Your task to perform on an android device: delete a single message in the gmail app Image 0: 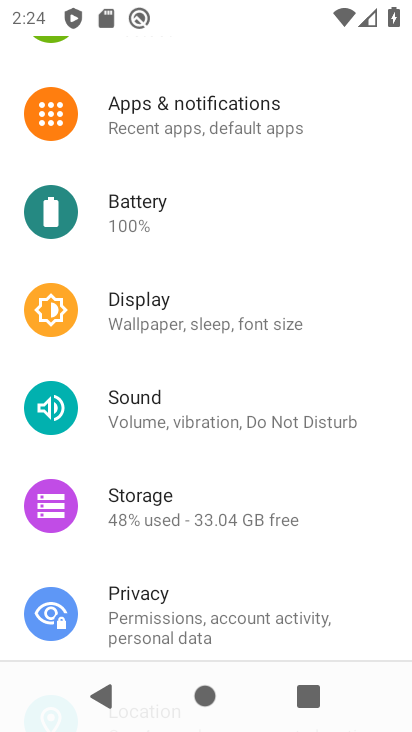
Step 0: press back button
Your task to perform on an android device: delete a single message in the gmail app Image 1: 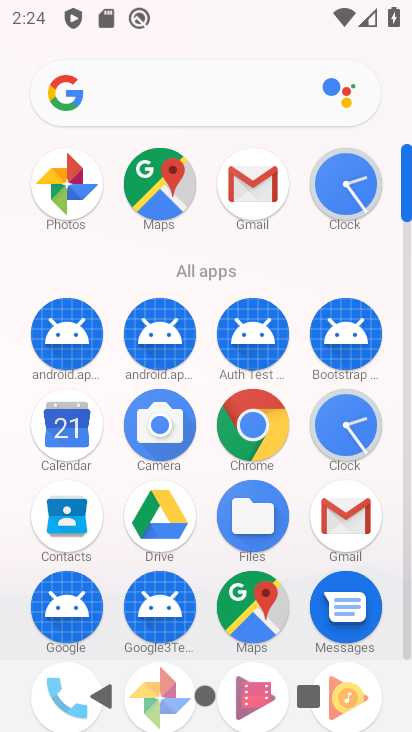
Step 1: click (260, 183)
Your task to perform on an android device: delete a single message in the gmail app Image 2: 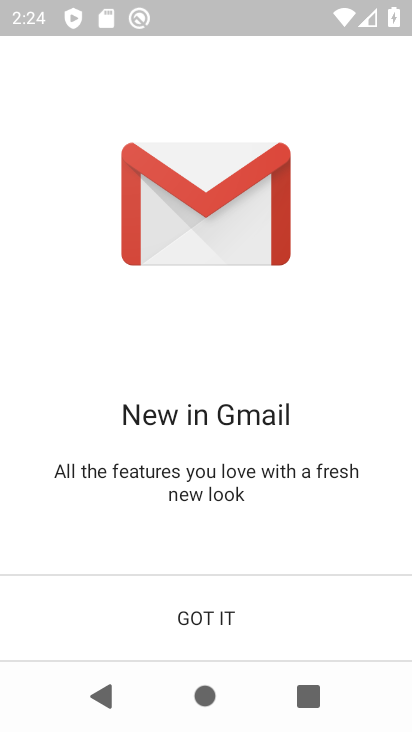
Step 2: click (211, 629)
Your task to perform on an android device: delete a single message in the gmail app Image 3: 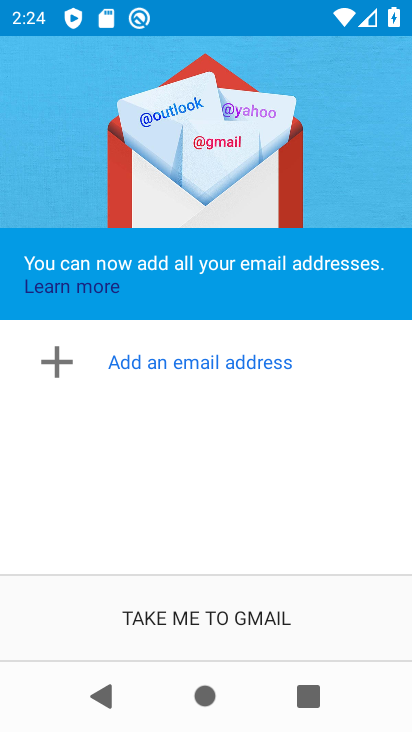
Step 3: click (212, 630)
Your task to perform on an android device: delete a single message in the gmail app Image 4: 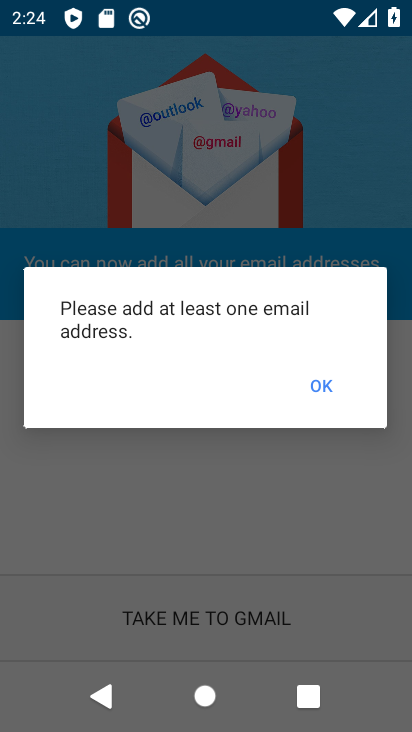
Step 4: click (332, 379)
Your task to perform on an android device: delete a single message in the gmail app Image 5: 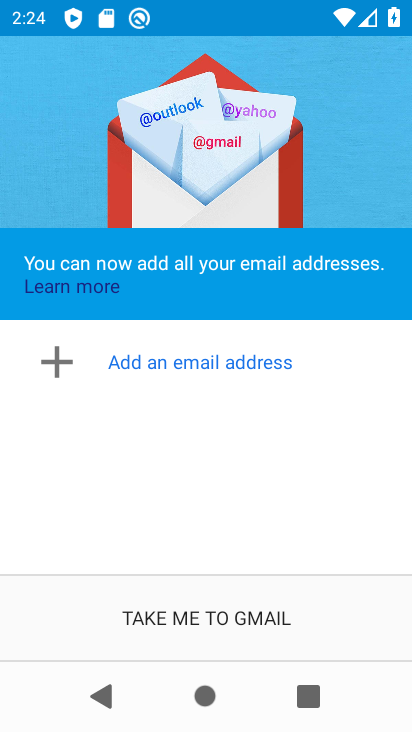
Step 5: task complete